Your task to perform on an android device: When is my next meeting? Image 0: 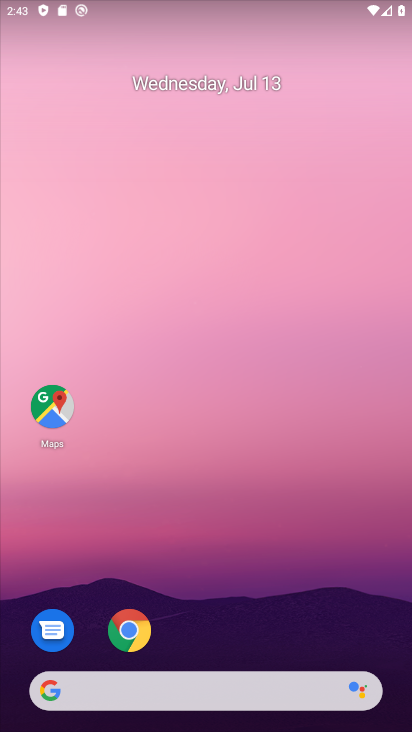
Step 0: drag from (134, 533) to (243, 258)
Your task to perform on an android device: When is my next meeting? Image 1: 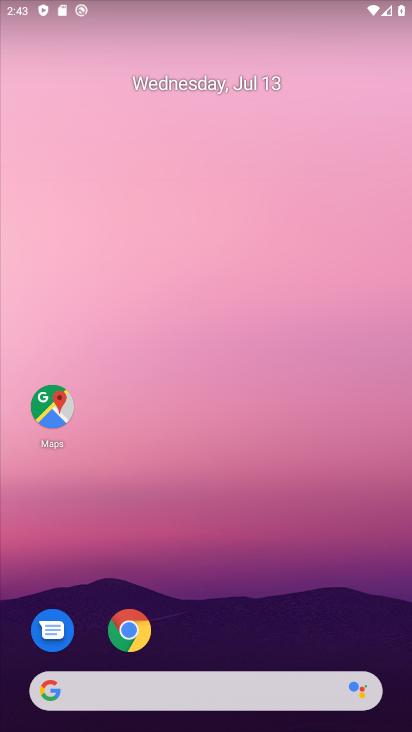
Step 1: drag from (12, 716) to (241, 100)
Your task to perform on an android device: When is my next meeting? Image 2: 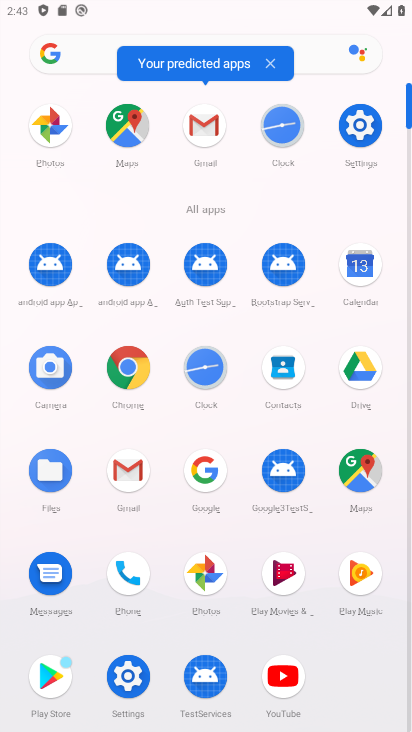
Step 2: click (382, 277)
Your task to perform on an android device: When is my next meeting? Image 3: 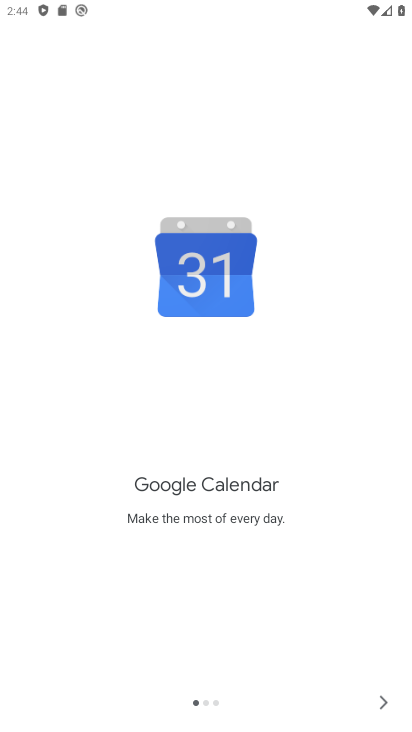
Step 3: click (382, 707)
Your task to perform on an android device: When is my next meeting? Image 4: 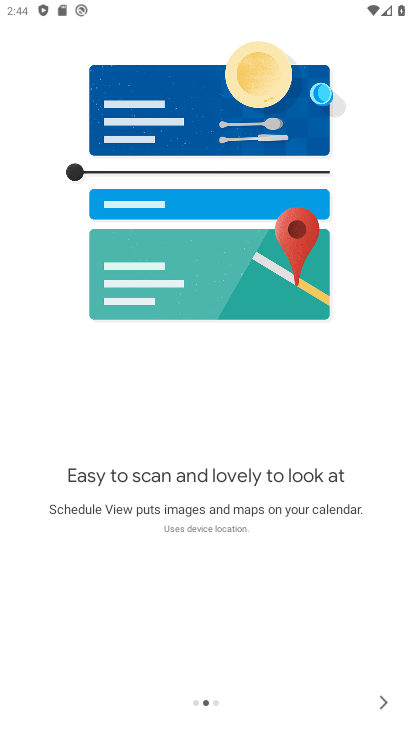
Step 4: click (383, 701)
Your task to perform on an android device: When is my next meeting? Image 5: 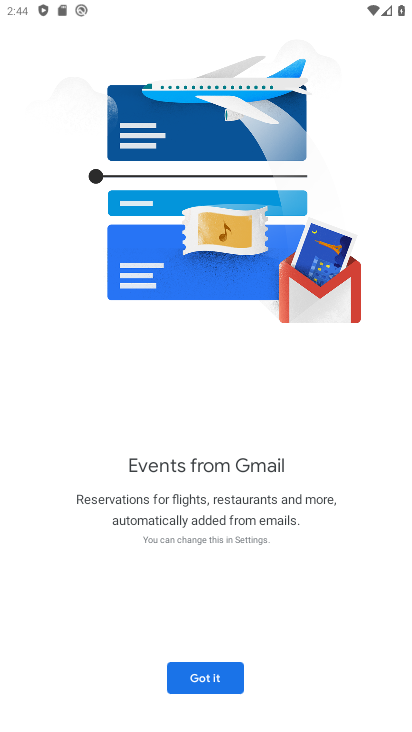
Step 5: click (189, 681)
Your task to perform on an android device: When is my next meeting? Image 6: 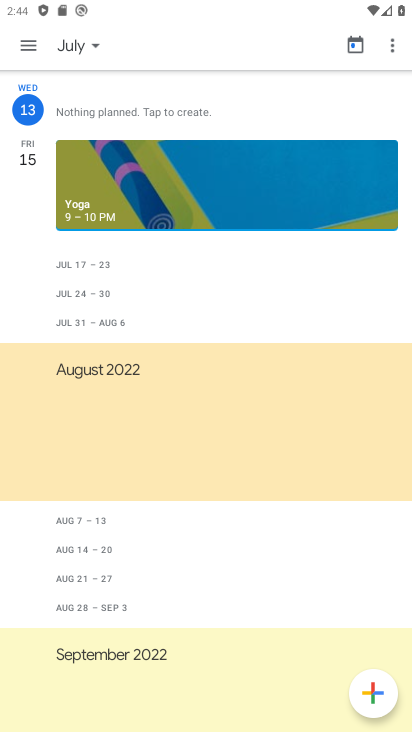
Step 6: click (78, 43)
Your task to perform on an android device: When is my next meeting? Image 7: 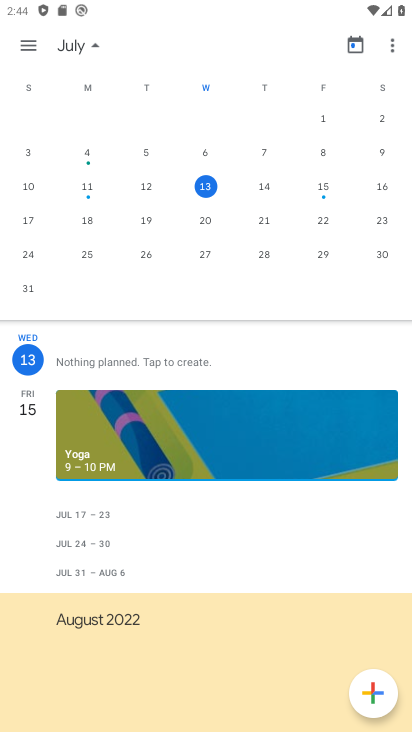
Step 7: task complete